Your task to perform on an android device: What's on my calendar tomorrow? Image 0: 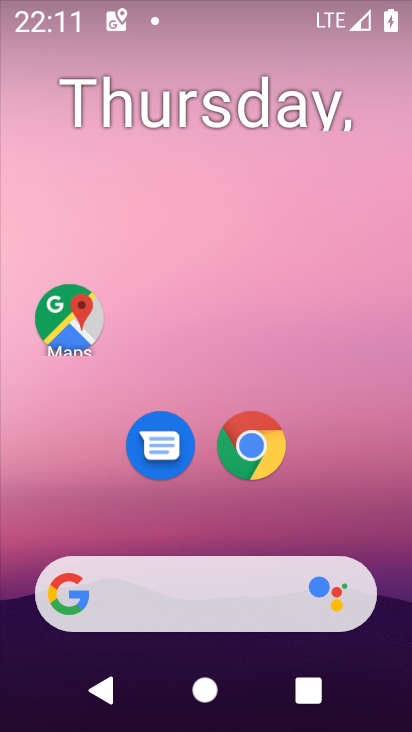
Step 0: drag from (239, 519) to (240, 162)
Your task to perform on an android device: What's on my calendar tomorrow? Image 1: 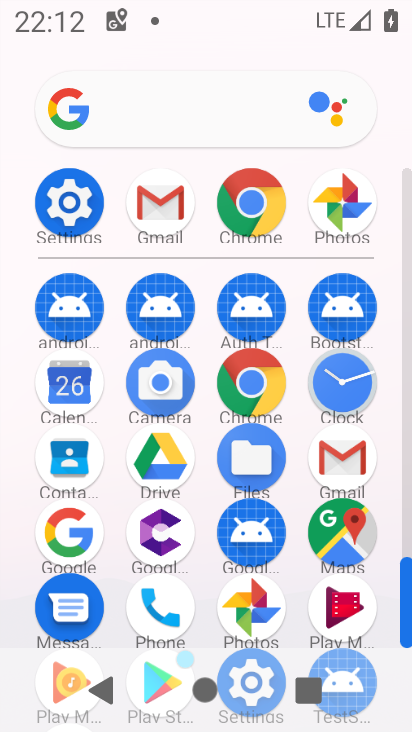
Step 1: click (73, 380)
Your task to perform on an android device: What's on my calendar tomorrow? Image 2: 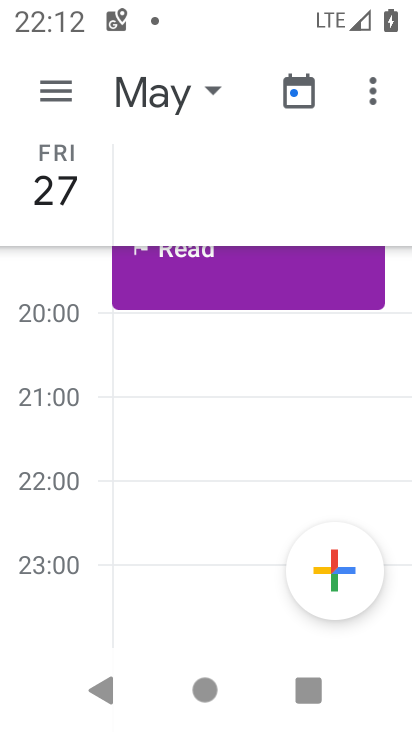
Step 2: click (187, 98)
Your task to perform on an android device: What's on my calendar tomorrow? Image 3: 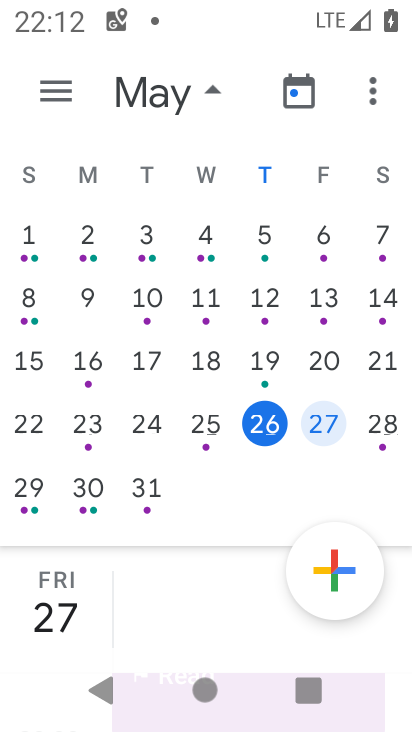
Step 3: click (187, 98)
Your task to perform on an android device: What's on my calendar tomorrow? Image 4: 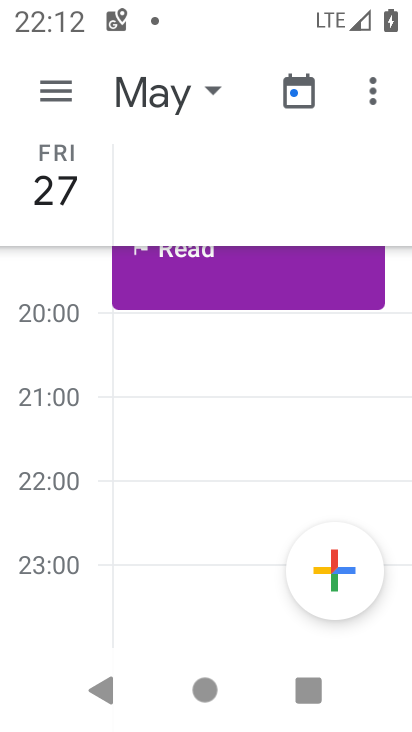
Step 4: task complete